Your task to perform on an android device: check google app version Image 0: 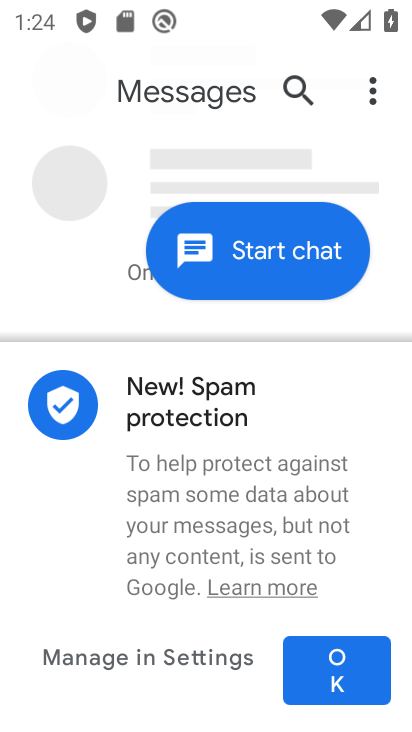
Step 0: press home button
Your task to perform on an android device: check google app version Image 1: 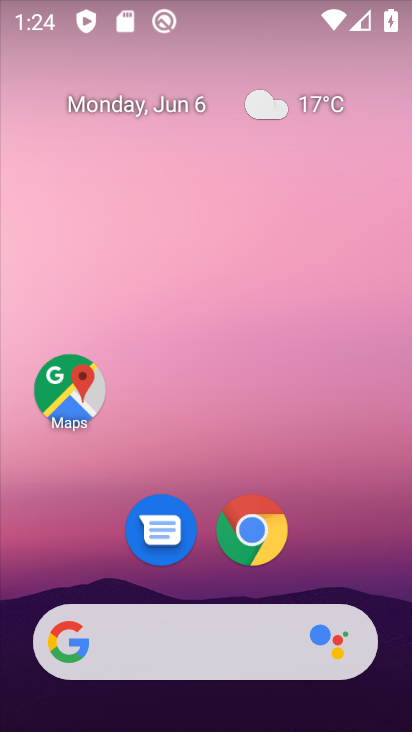
Step 1: click (274, 542)
Your task to perform on an android device: check google app version Image 2: 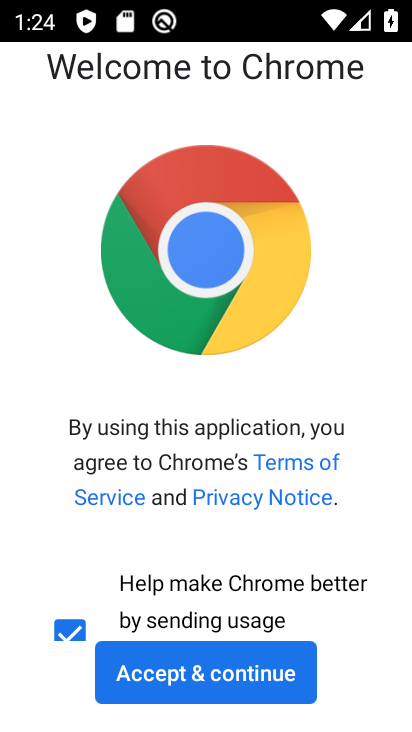
Step 2: click (267, 663)
Your task to perform on an android device: check google app version Image 3: 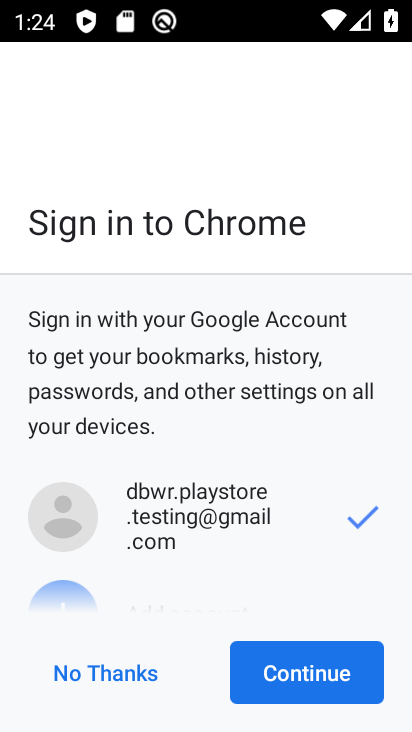
Step 3: click (335, 691)
Your task to perform on an android device: check google app version Image 4: 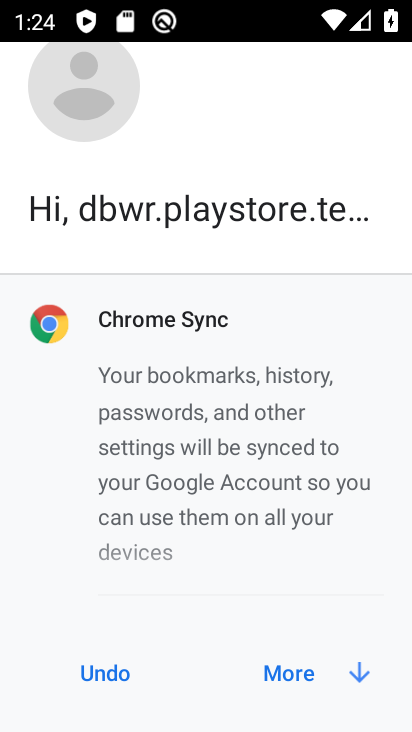
Step 4: click (316, 673)
Your task to perform on an android device: check google app version Image 5: 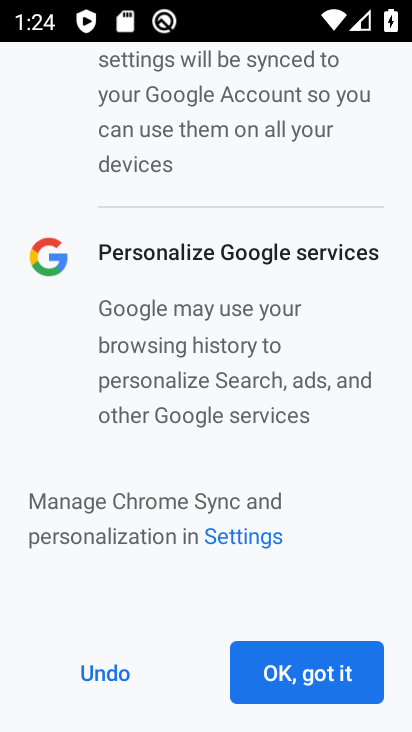
Step 5: click (316, 673)
Your task to perform on an android device: check google app version Image 6: 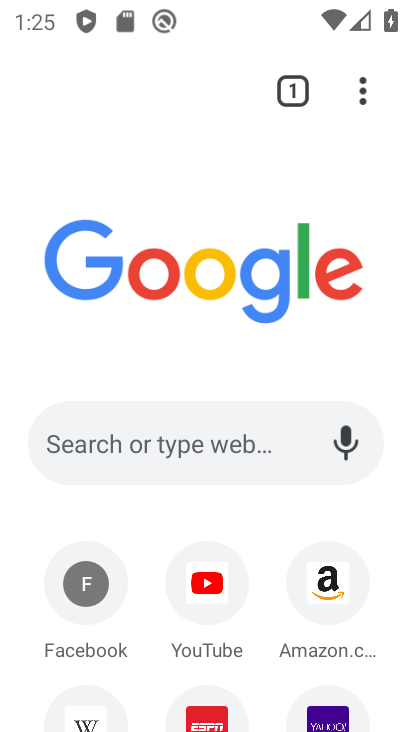
Step 6: click (364, 111)
Your task to perform on an android device: check google app version Image 7: 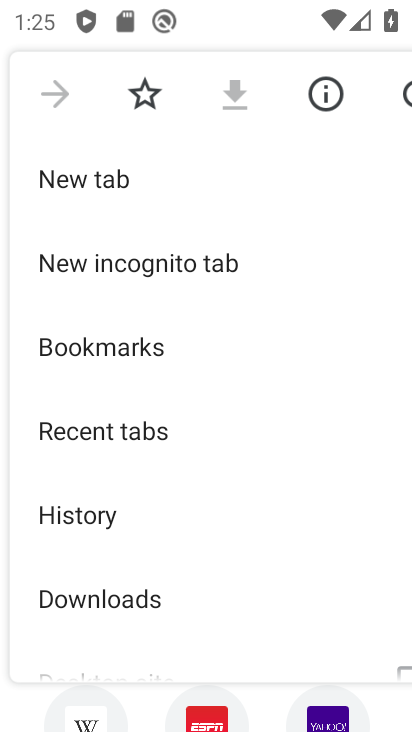
Step 7: drag from (202, 589) to (191, 110)
Your task to perform on an android device: check google app version Image 8: 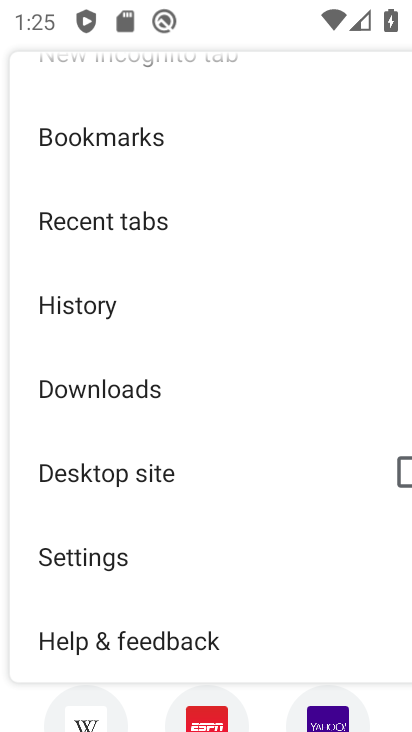
Step 8: drag from (226, 669) to (197, 542)
Your task to perform on an android device: check google app version Image 9: 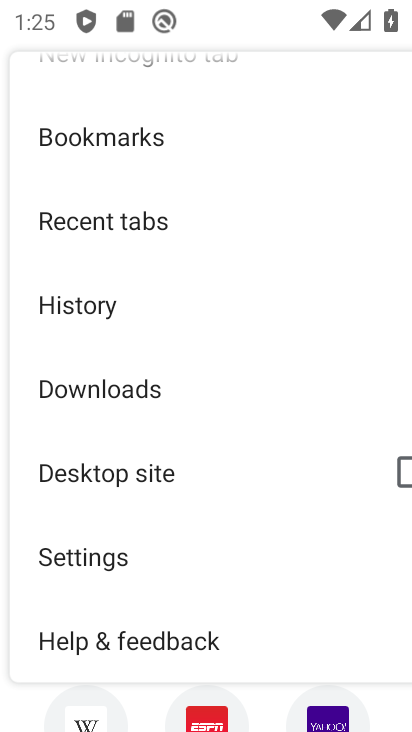
Step 9: click (192, 629)
Your task to perform on an android device: check google app version Image 10: 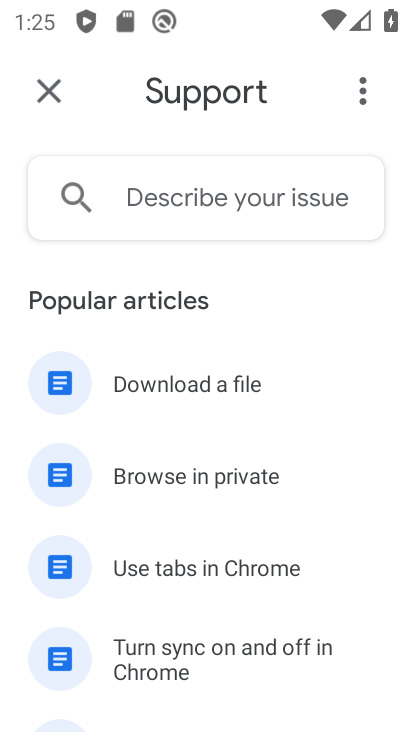
Step 10: click (359, 109)
Your task to perform on an android device: check google app version Image 11: 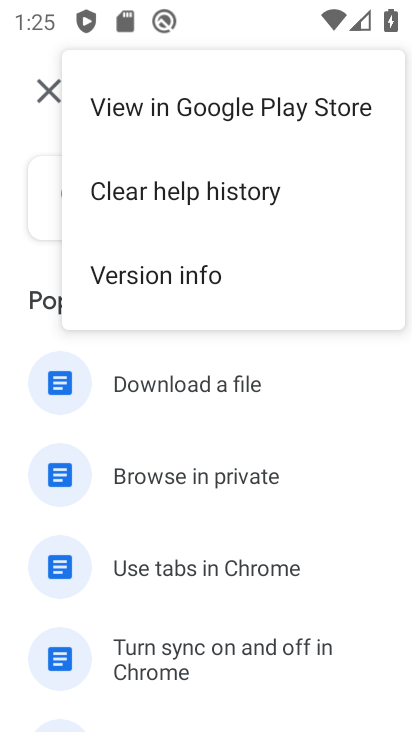
Step 11: click (273, 283)
Your task to perform on an android device: check google app version Image 12: 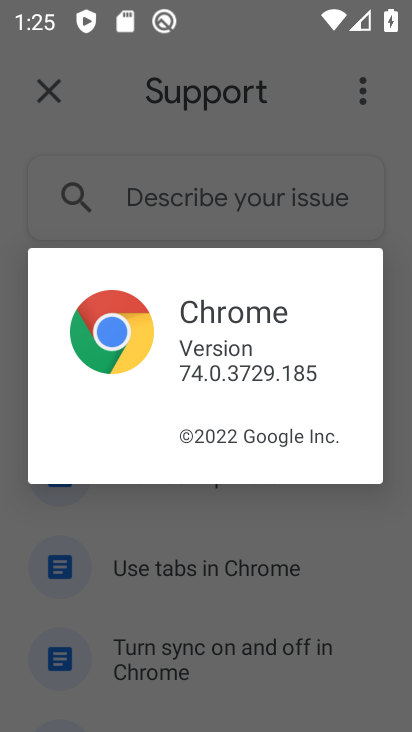
Step 12: task complete